Your task to perform on an android device: Add usb-a to the cart on amazon Image 0: 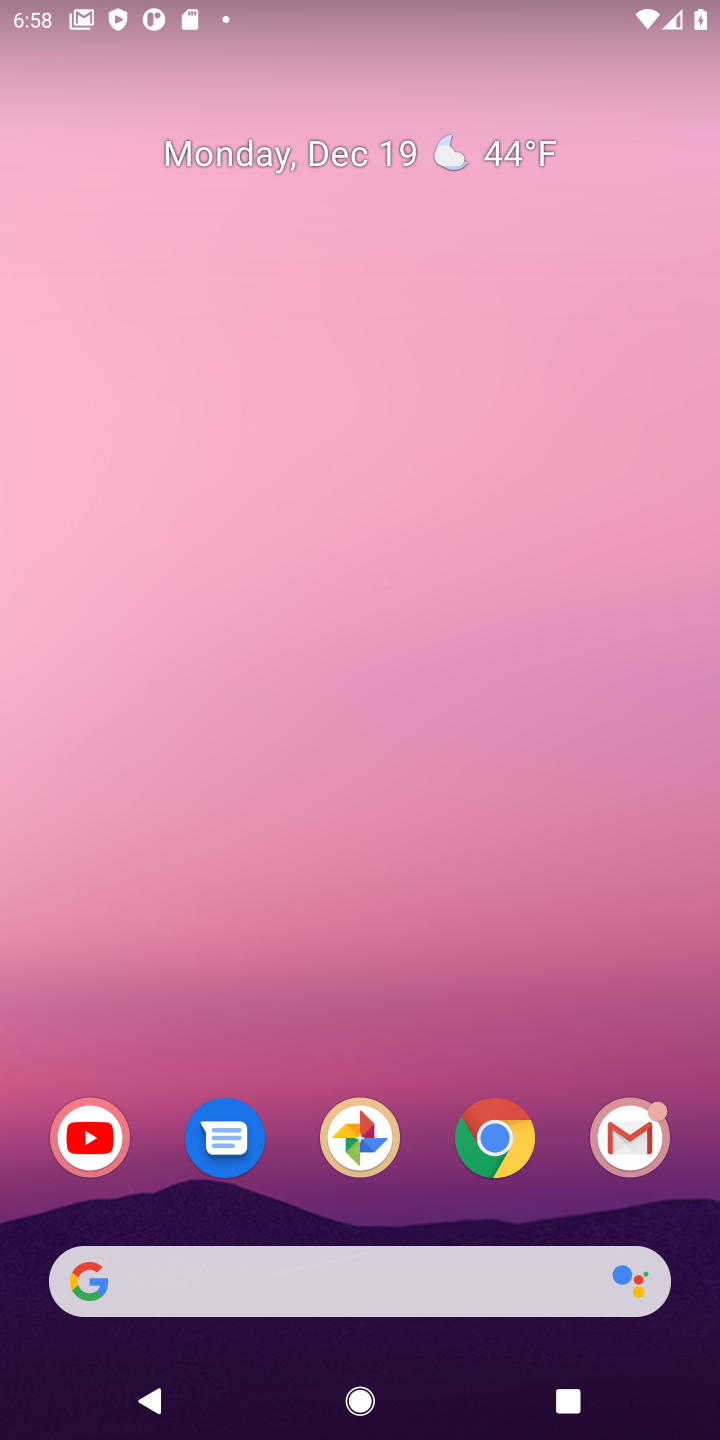
Step 0: click (491, 1140)
Your task to perform on an android device: Add usb-a to the cart on amazon Image 1: 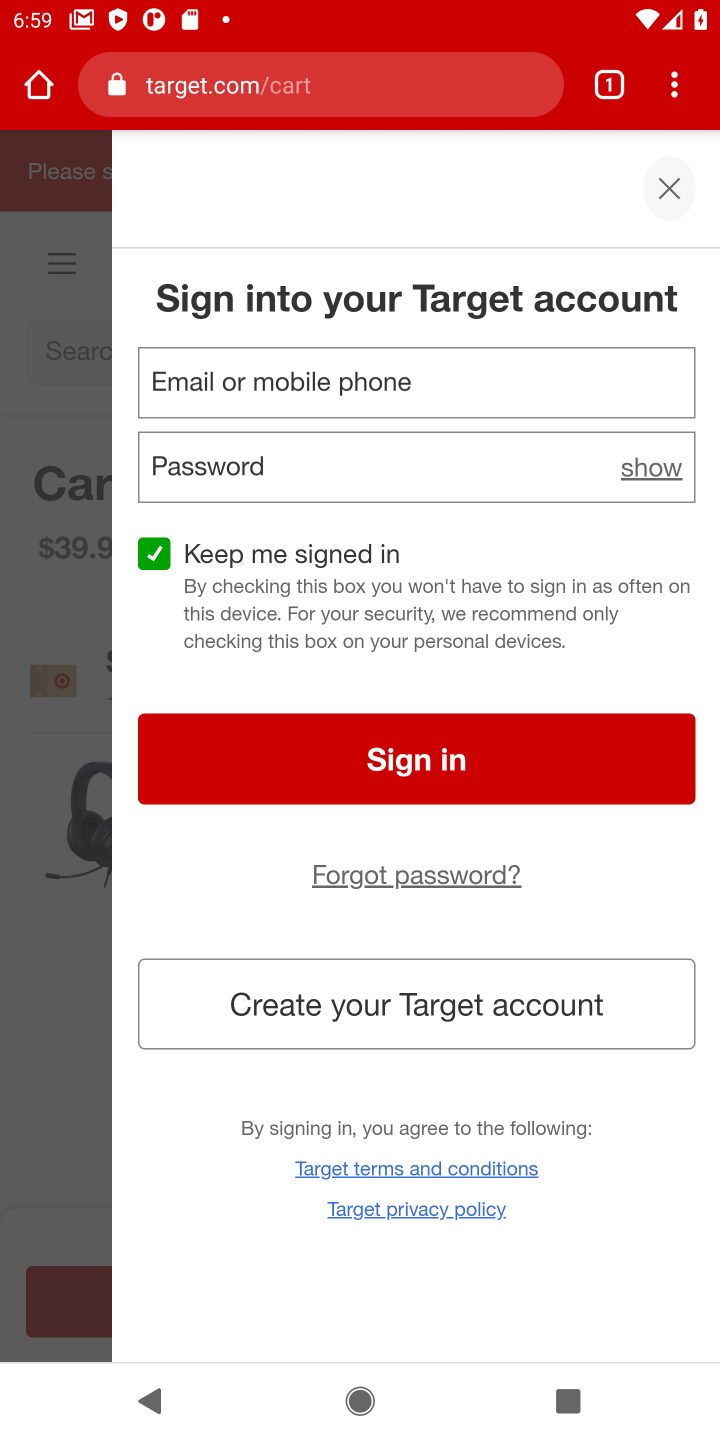
Step 1: click (665, 192)
Your task to perform on an android device: Add usb-a to the cart on amazon Image 2: 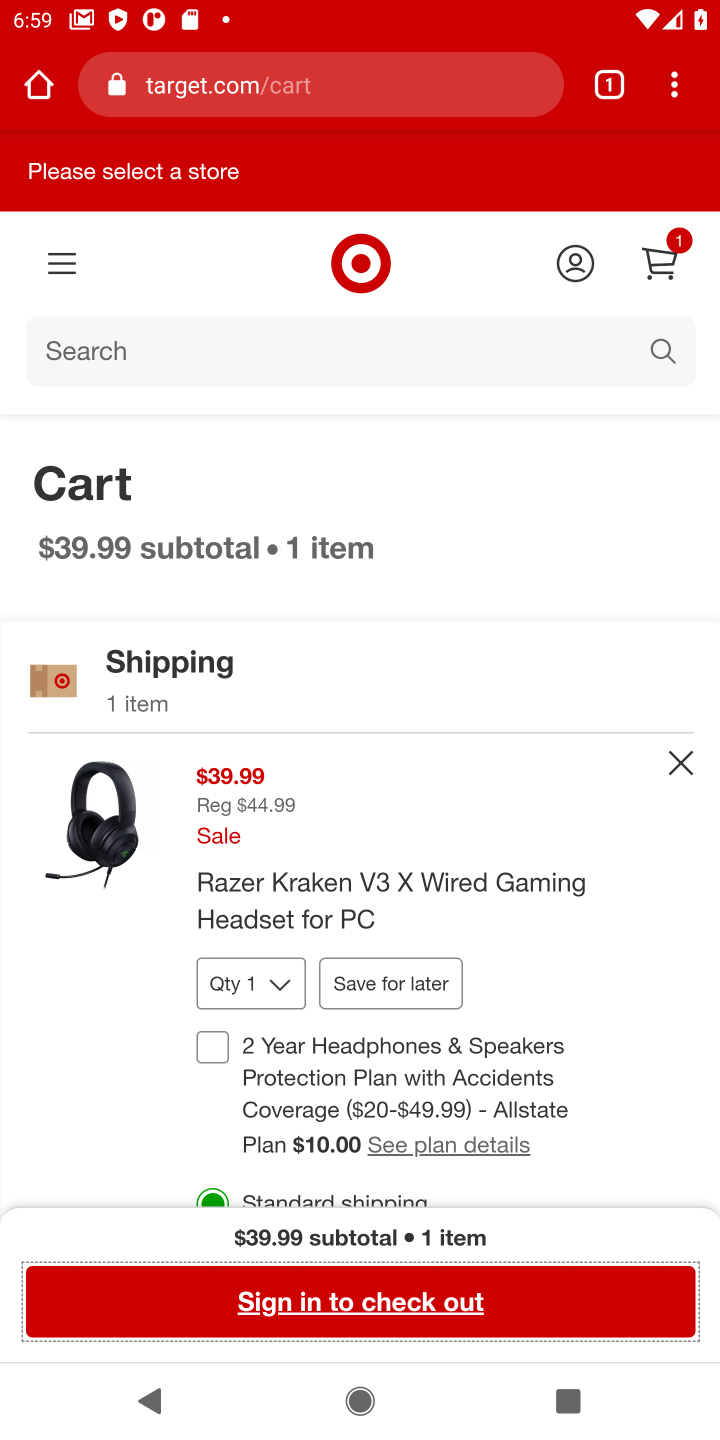
Step 2: click (677, 762)
Your task to perform on an android device: Add usb-a to the cart on amazon Image 3: 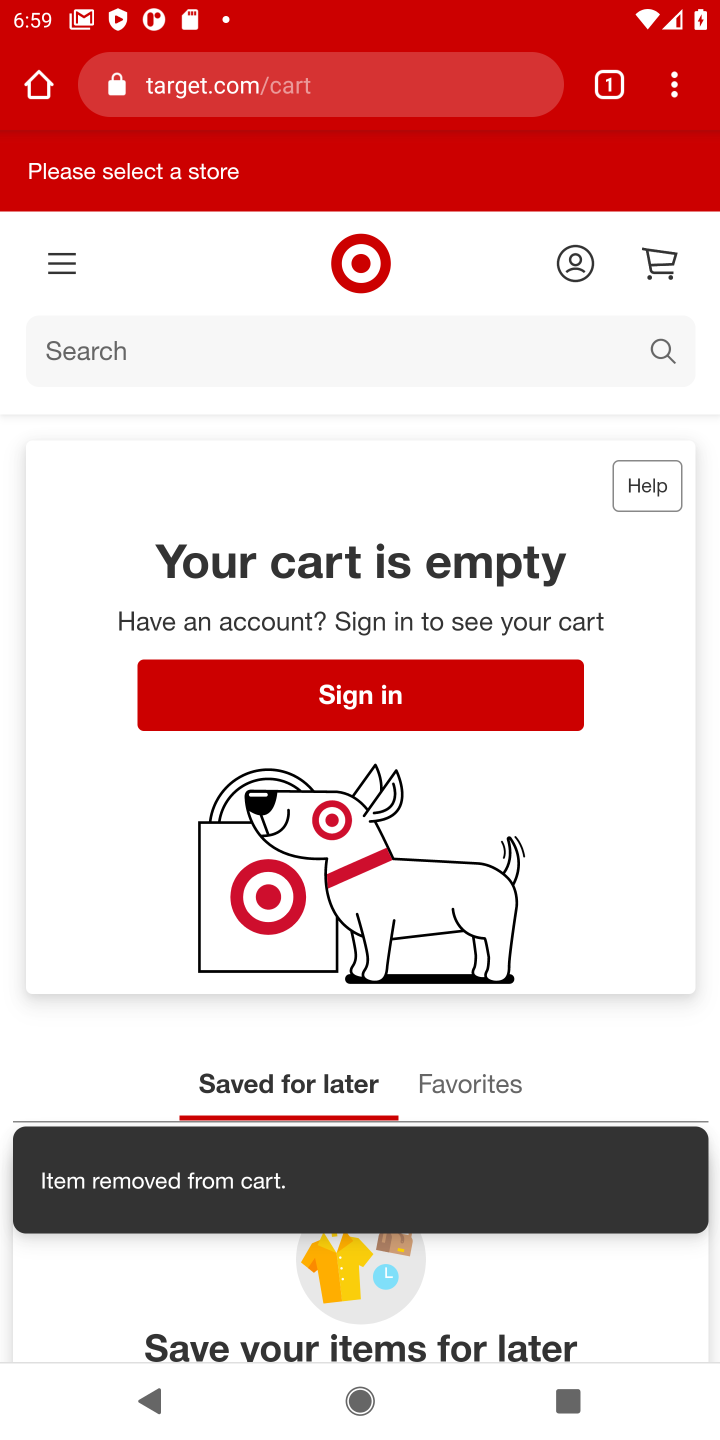
Step 3: click (359, 355)
Your task to perform on an android device: Add usb-a to the cart on amazon Image 4: 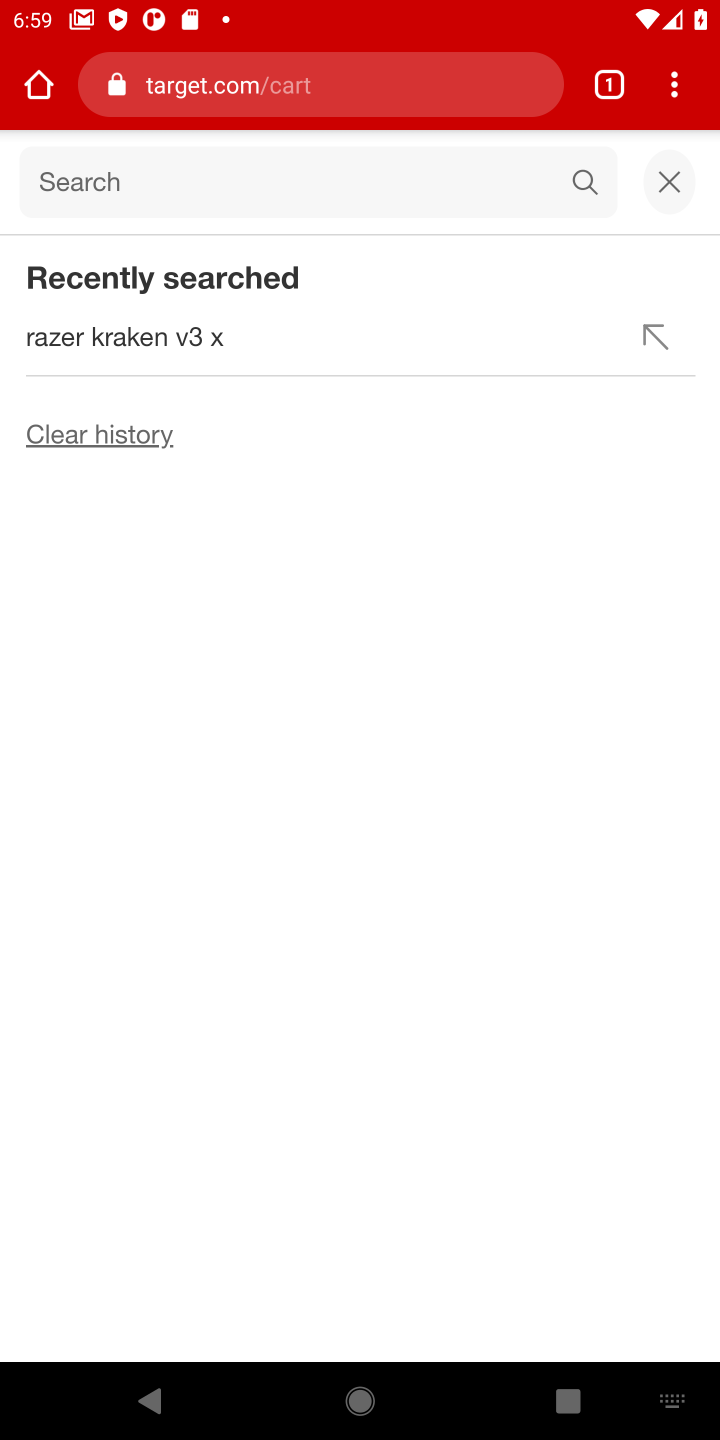
Step 4: click (269, 96)
Your task to perform on an android device: Add usb-a to the cart on amazon Image 5: 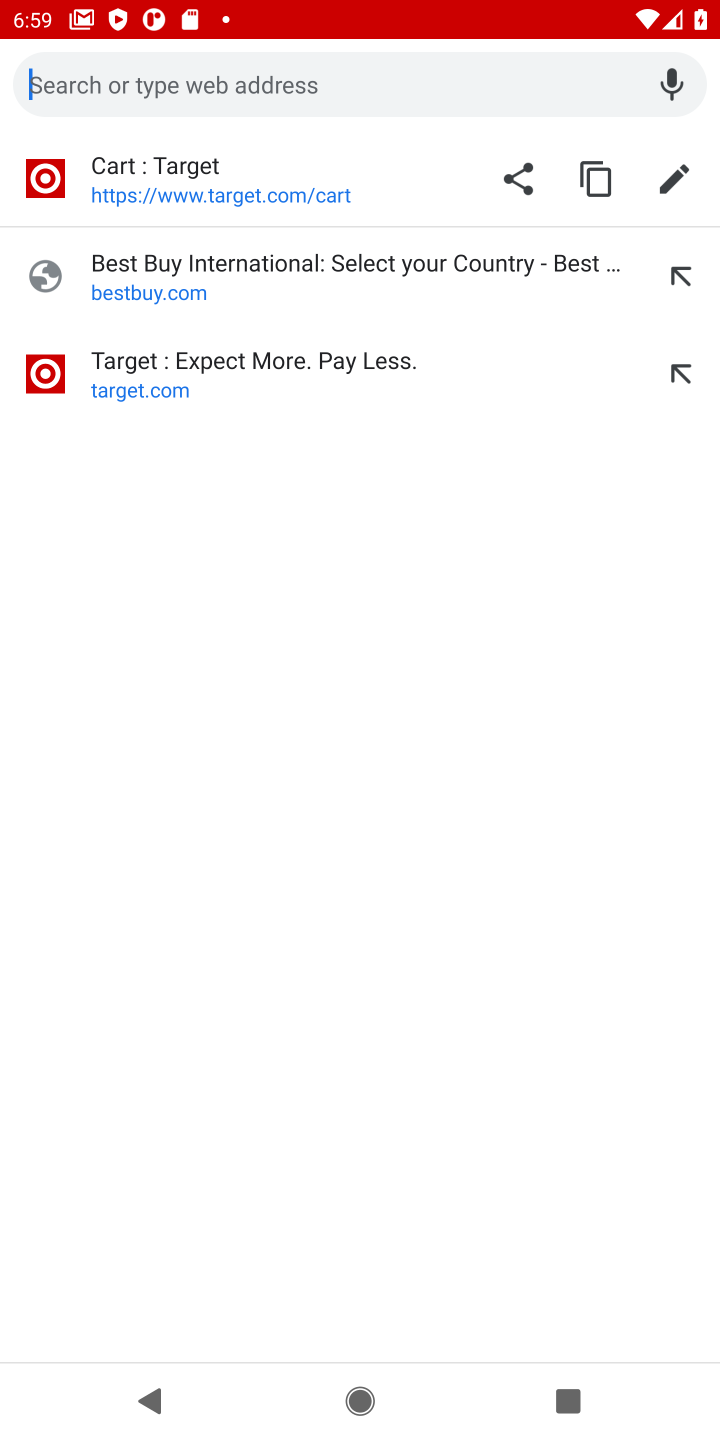
Step 5: type "amazon"
Your task to perform on an android device: Add usb-a to the cart on amazon Image 6: 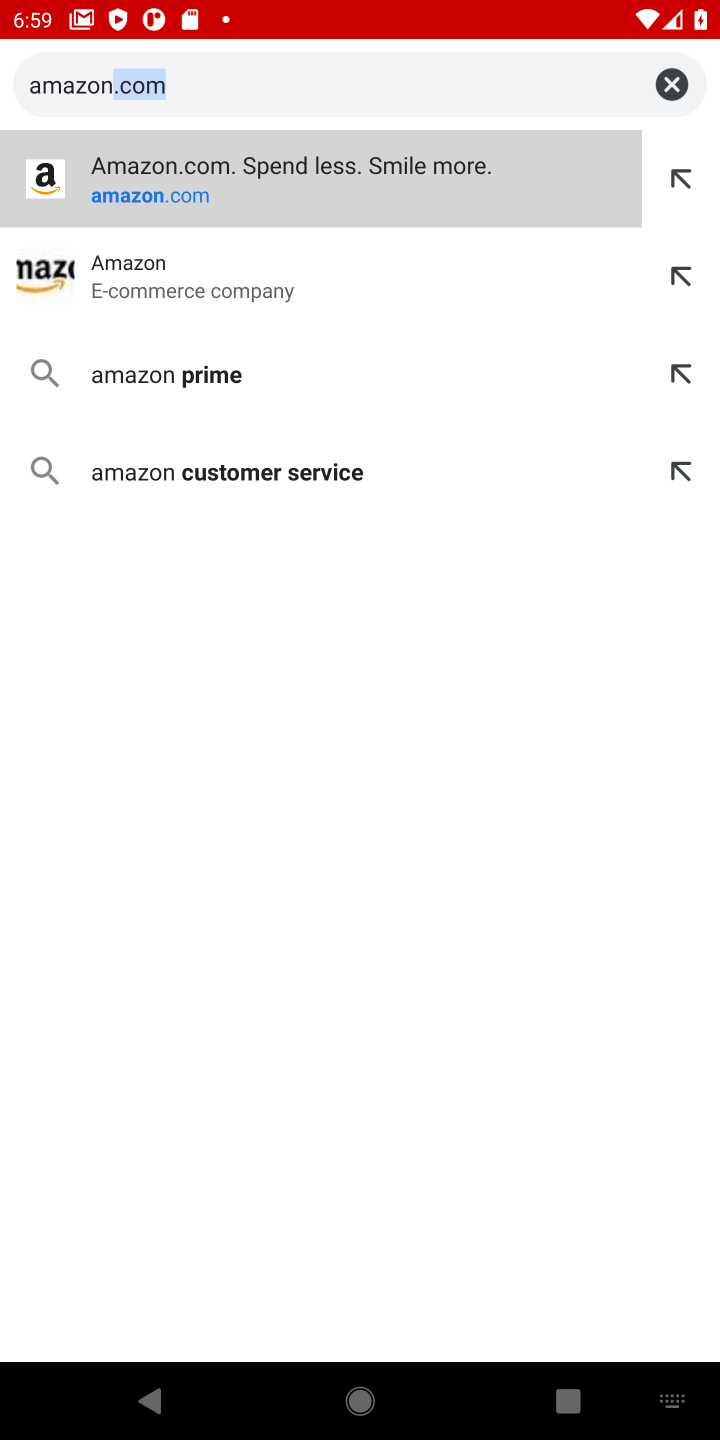
Step 6: click (265, 179)
Your task to perform on an android device: Add usb-a to the cart on amazon Image 7: 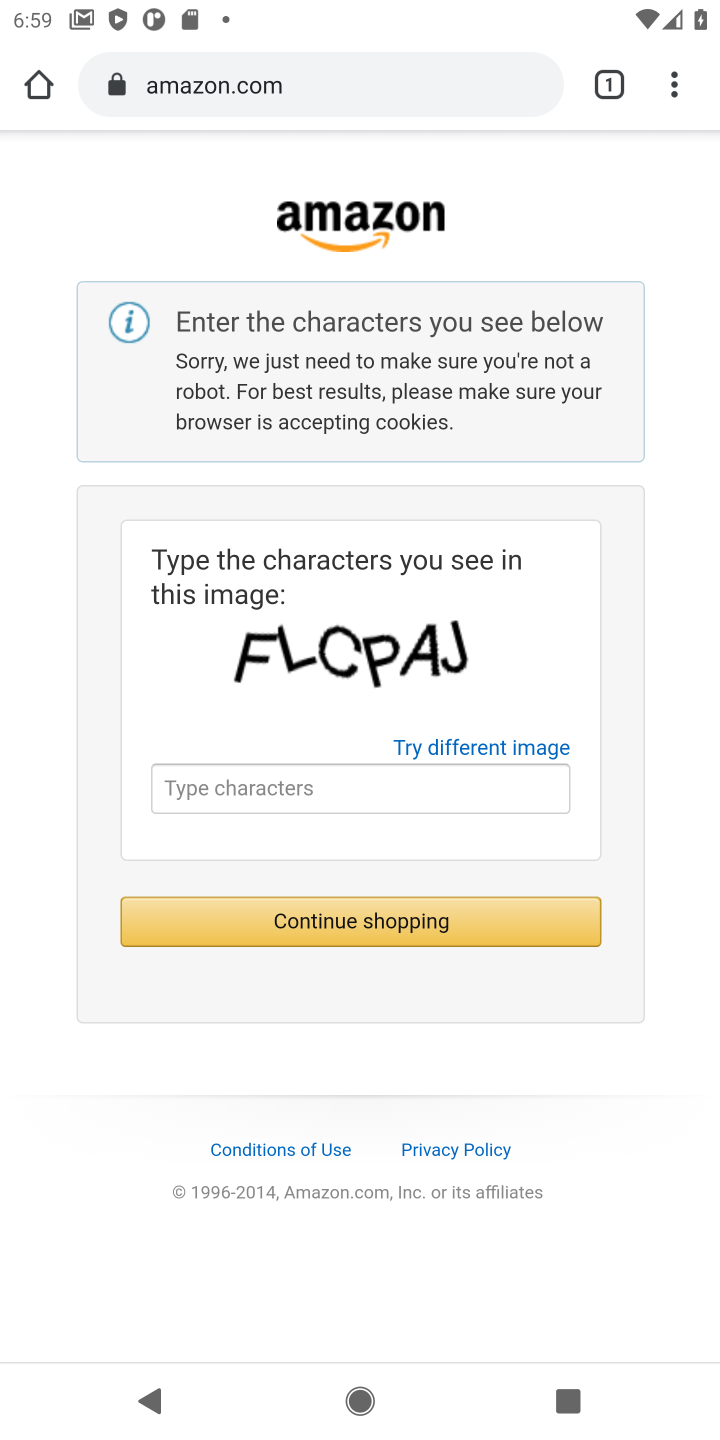
Step 7: click (308, 795)
Your task to perform on an android device: Add usb-a to the cart on amazon Image 8: 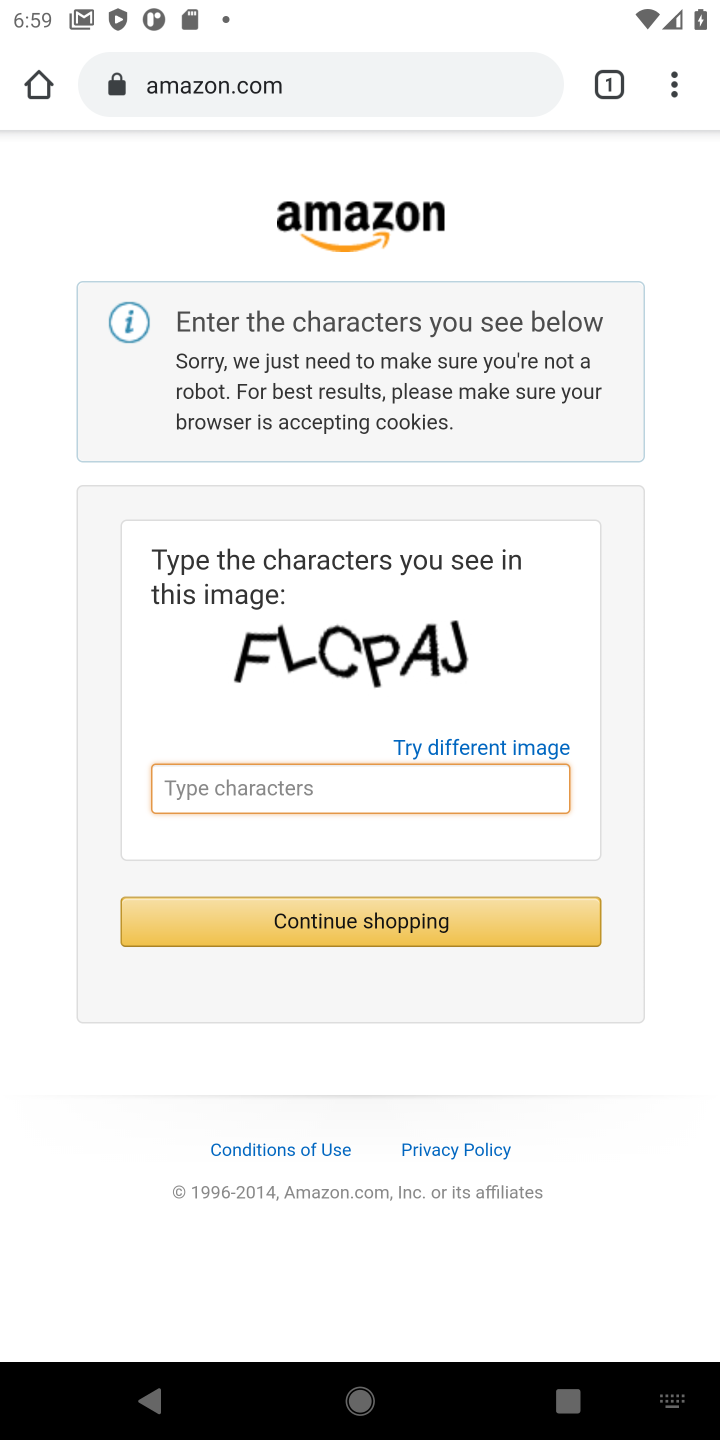
Step 8: type "FLCPAJ"
Your task to perform on an android device: Add usb-a to the cart on amazon Image 9: 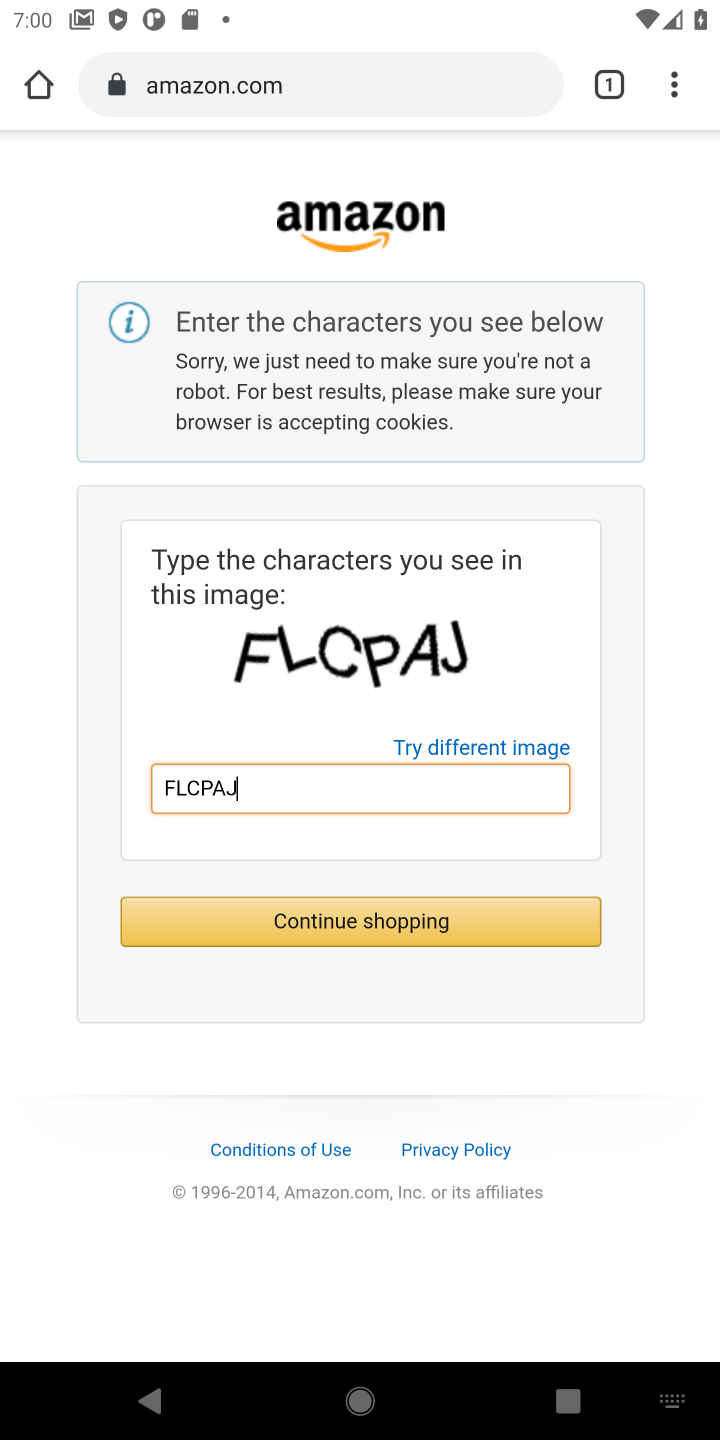
Step 9: click (435, 914)
Your task to perform on an android device: Add usb-a to the cart on amazon Image 10: 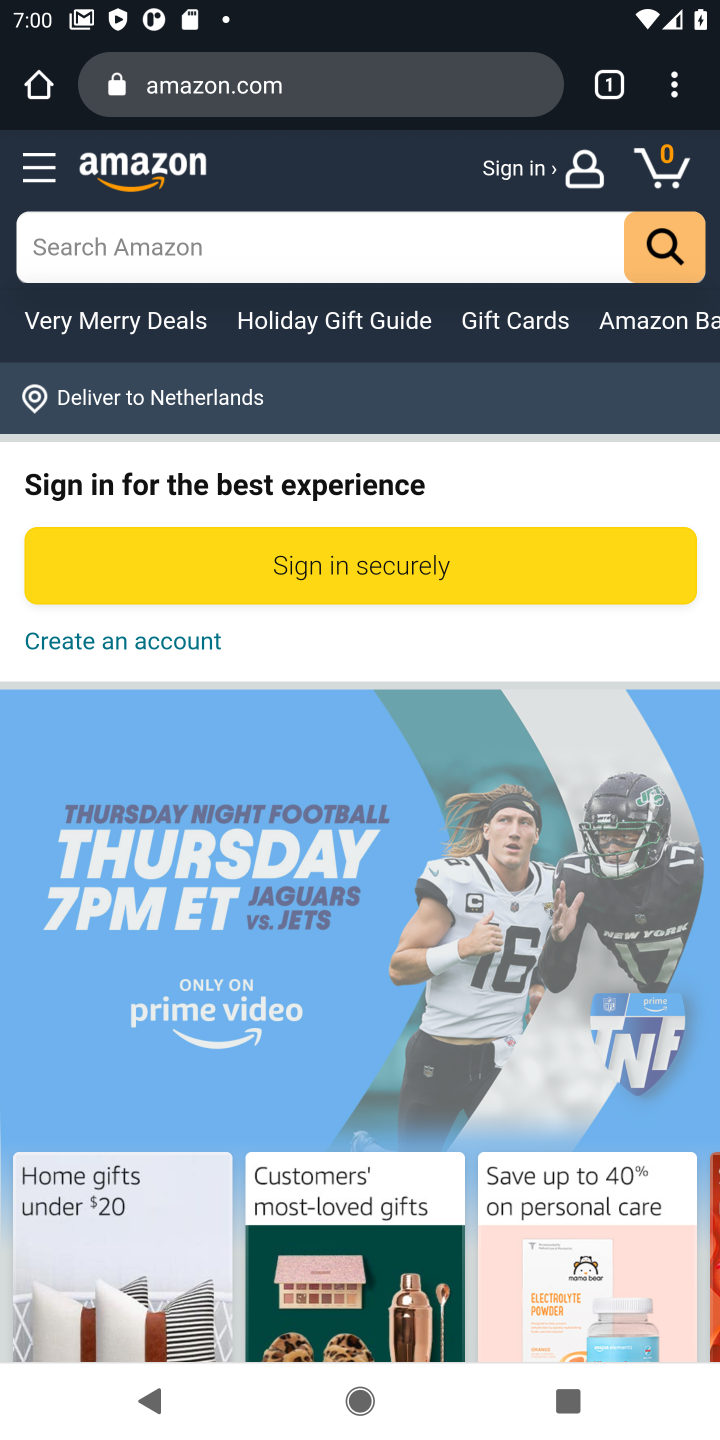
Step 10: click (384, 262)
Your task to perform on an android device: Add usb-a to the cart on amazon Image 11: 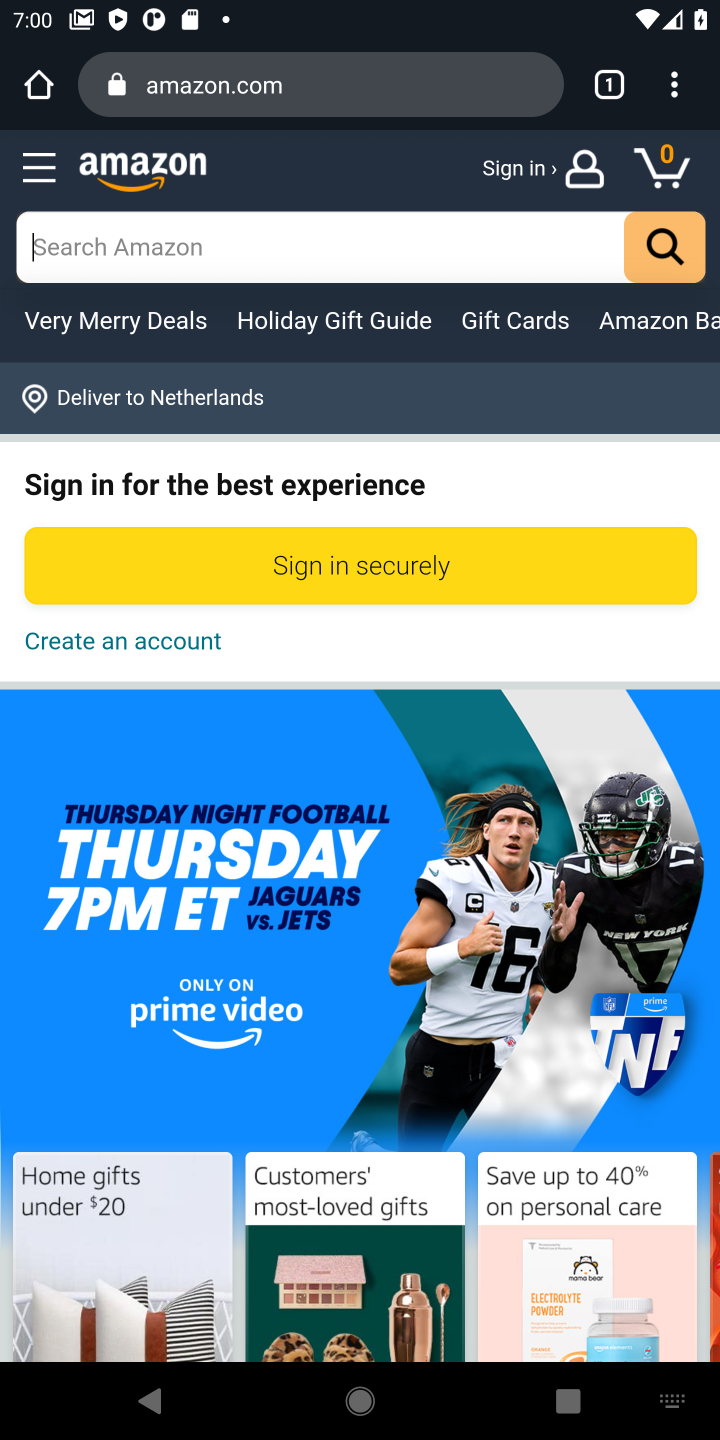
Step 11: click (400, 256)
Your task to perform on an android device: Add usb-a to the cart on amazon Image 12: 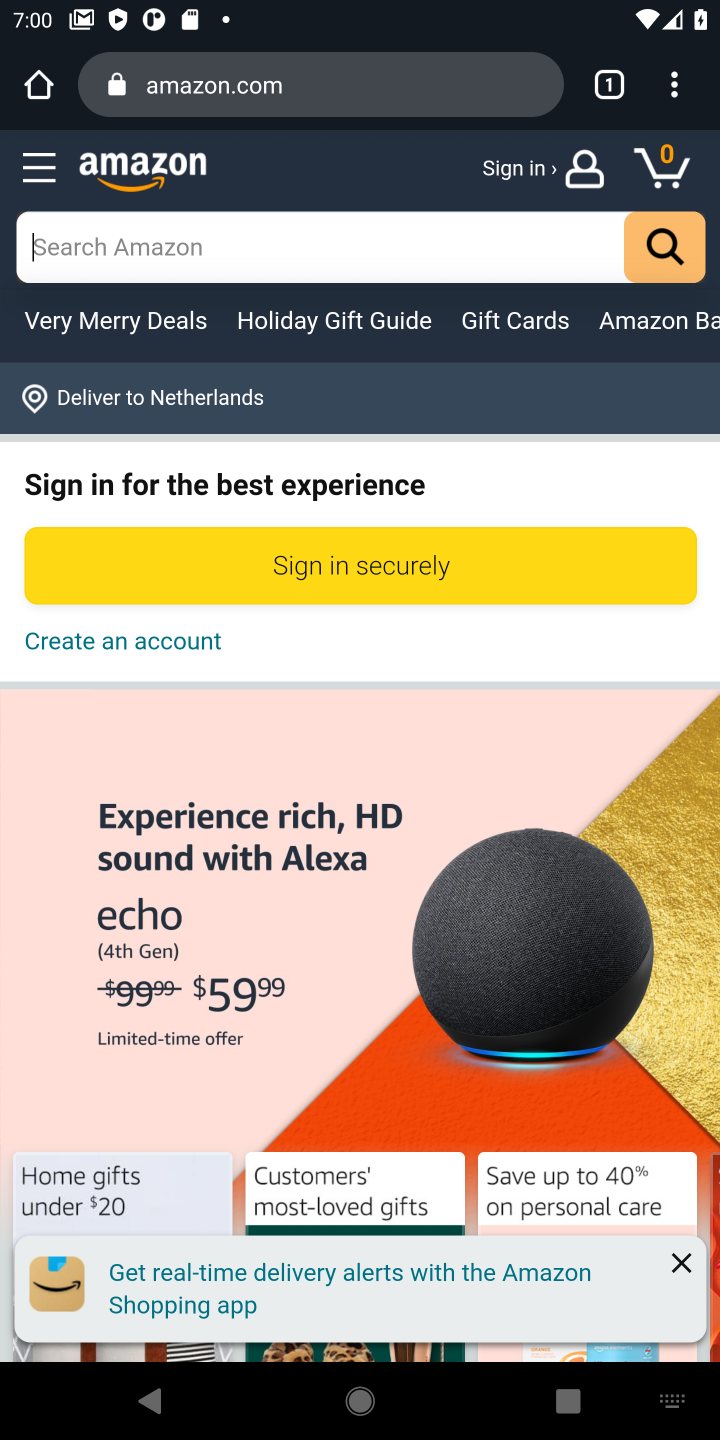
Step 12: type "USB-A"
Your task to perform on an android device: Add usb-a to the cart on amazon Image 13: 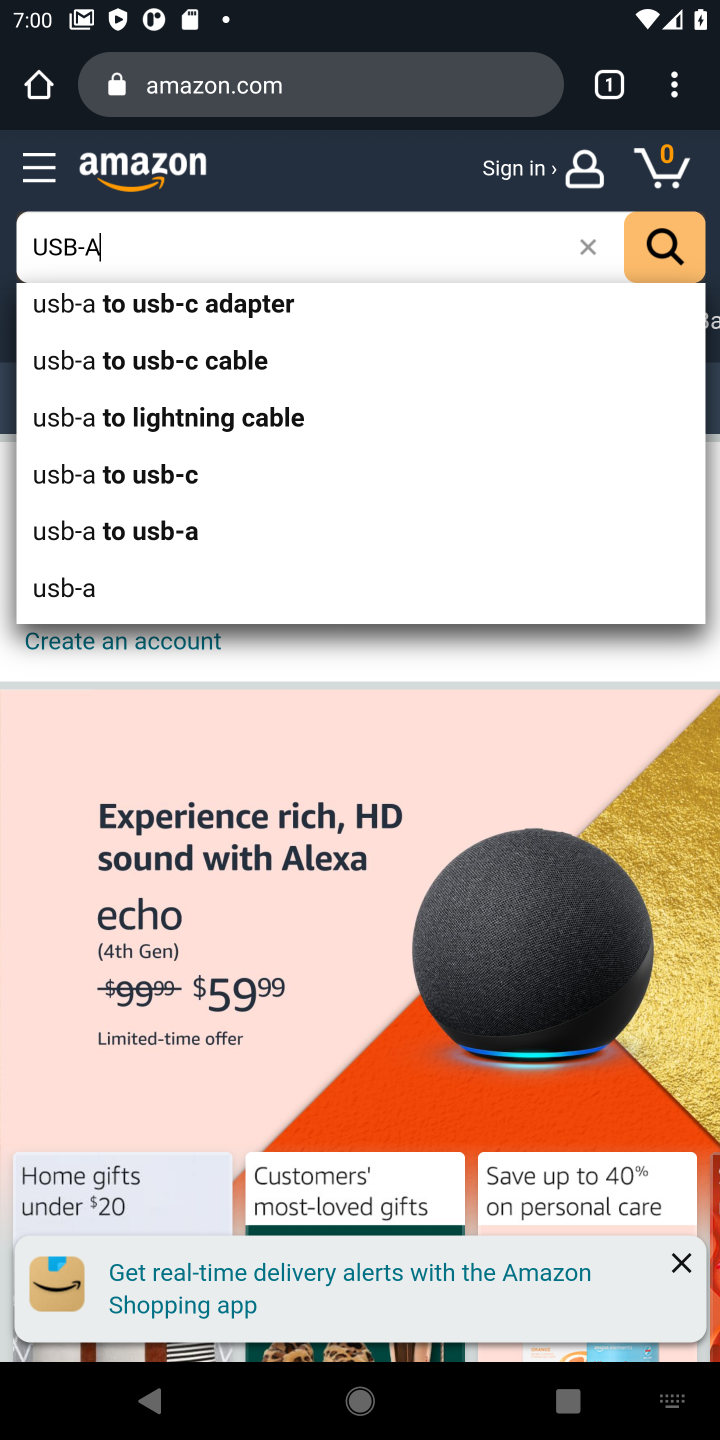
Step 13: click (153, 303)
Your task to perform on an android device: Add usb-a to the cart on amazon Image 14: 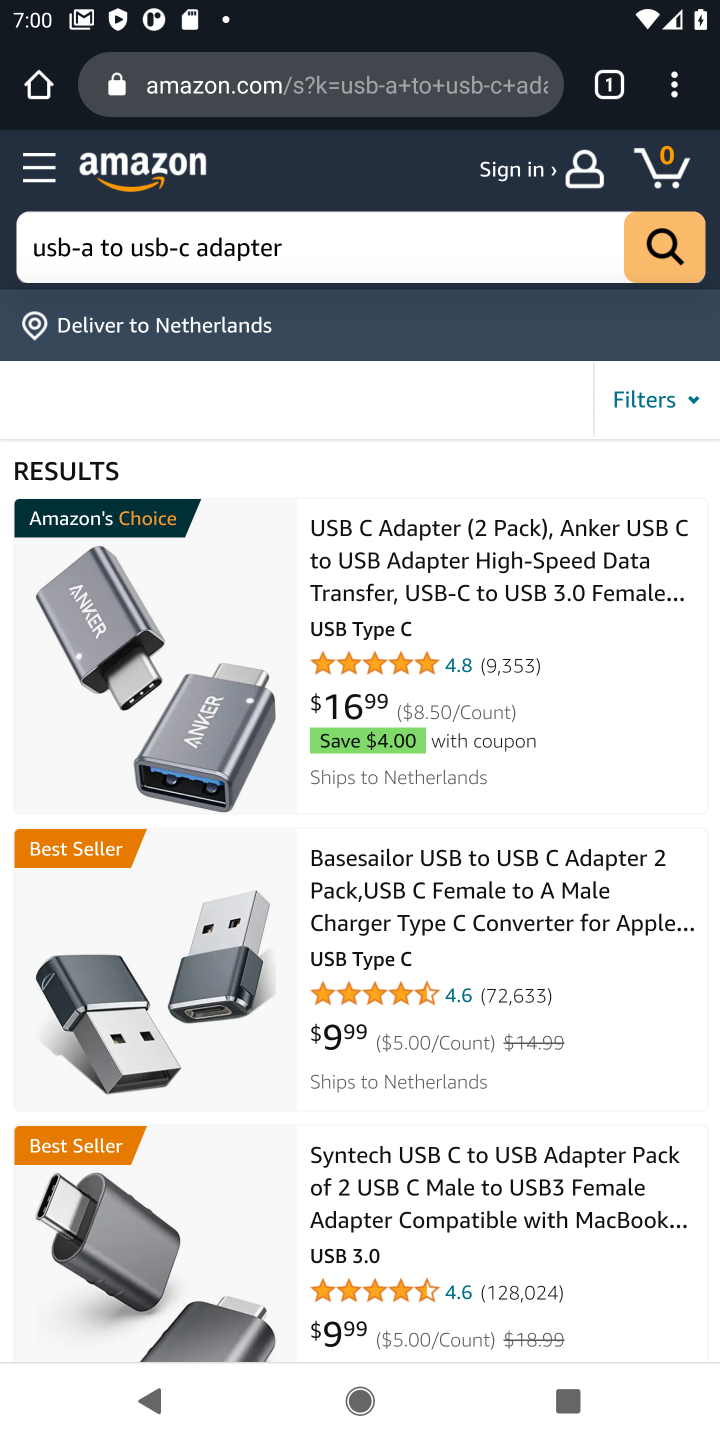
Step 14: click (575, 574)
Your task to perform on an android device: Add usb-a to the cart on amazon Image 15: 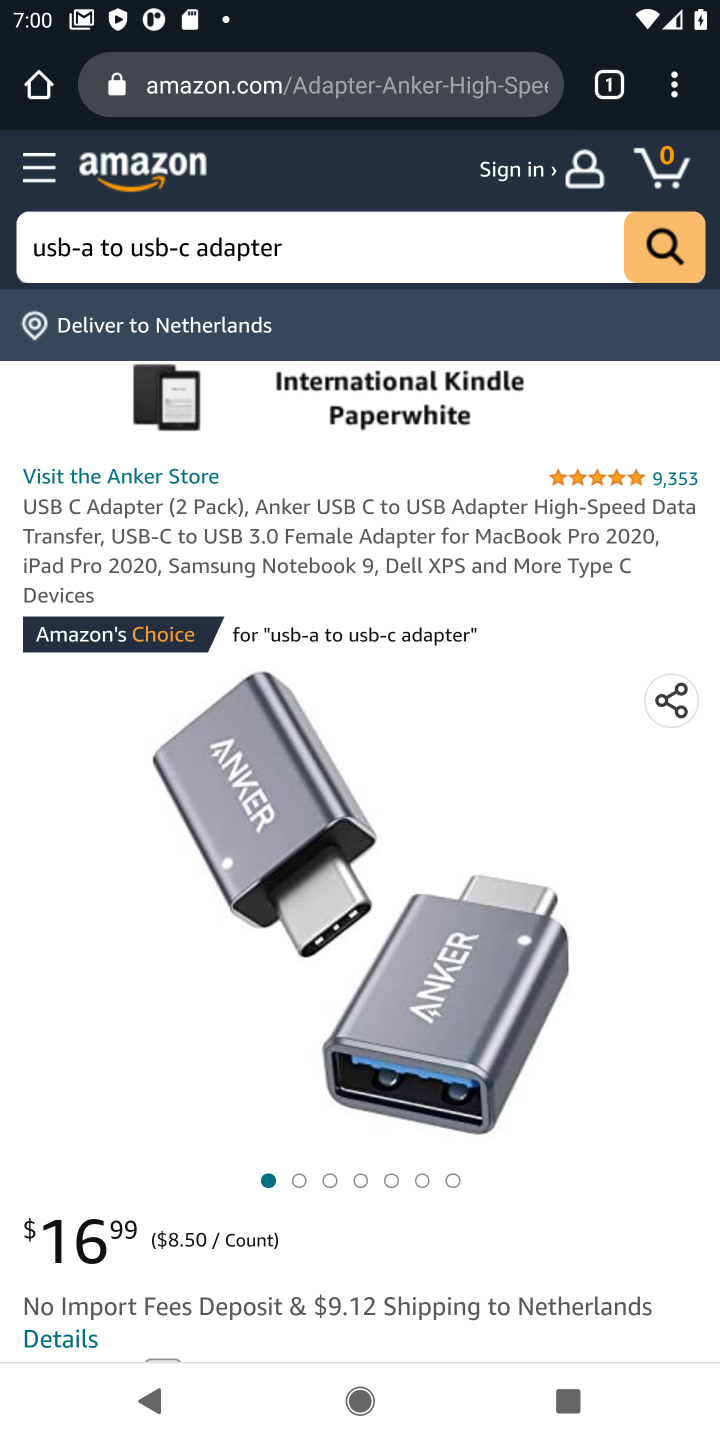
Step 15: drag from (483, 1247) to (366, 482)
Your task to perform on an android device: Add usb-a to the cart on amazon Image 16: 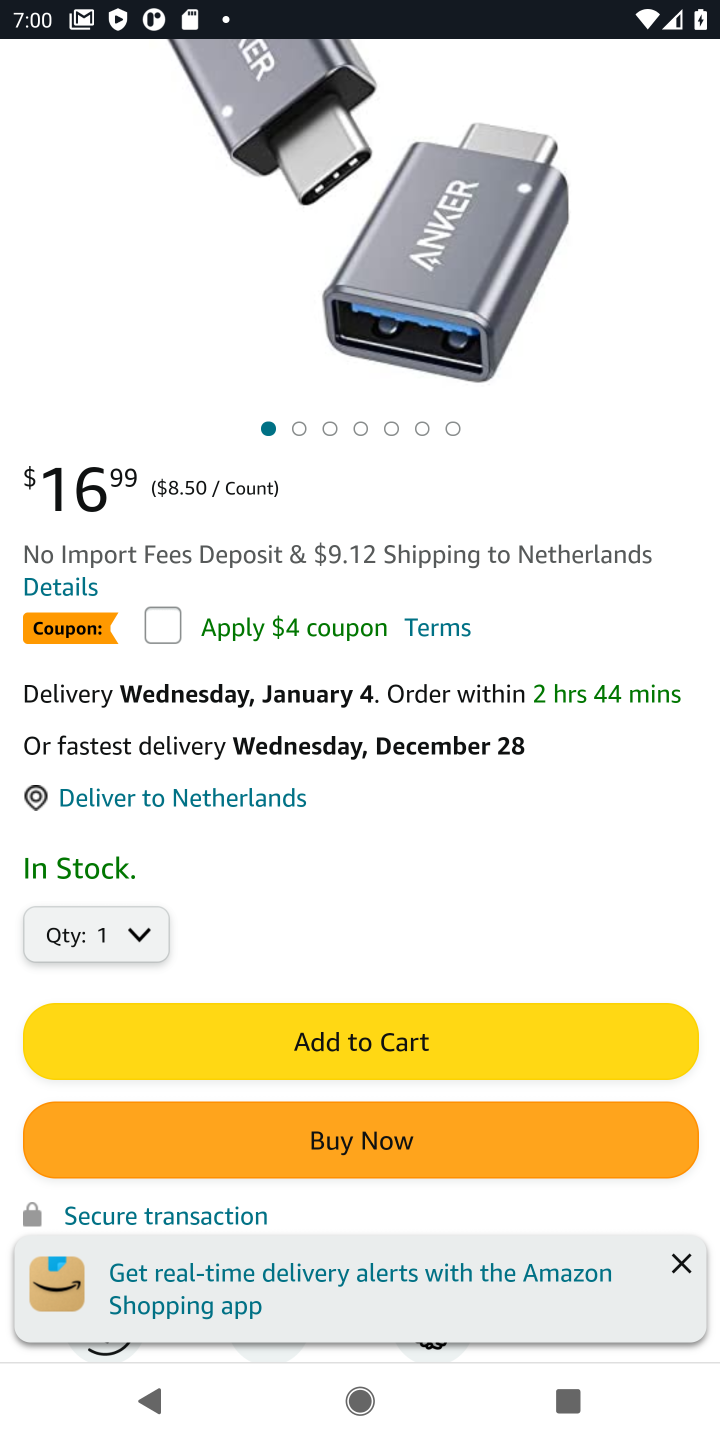
Step 16: click (398, 1041)
Your task to perform on an android device: Add usb-a to the cart on amazon Image 17: 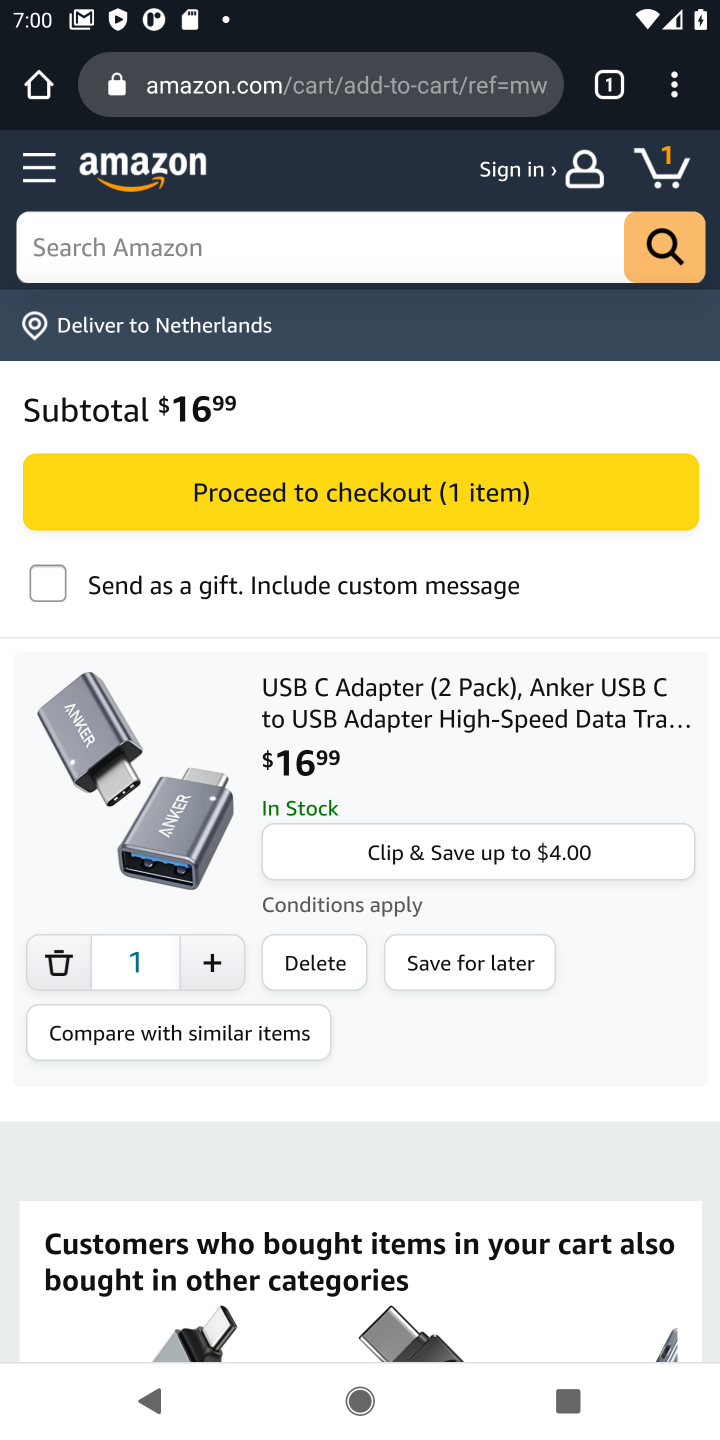
Step 17: task complete